Your task to perform on an android device: find which apps use the phone's location Image 0: 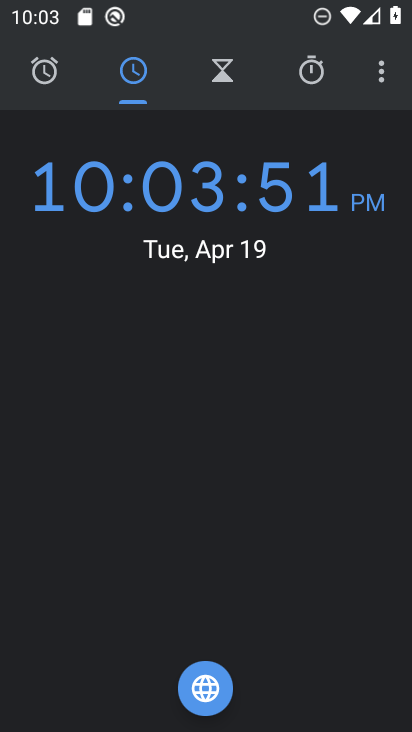
Step 0: press back button
Your task to perform on an android device: find which apps use the phone's location Image 1: 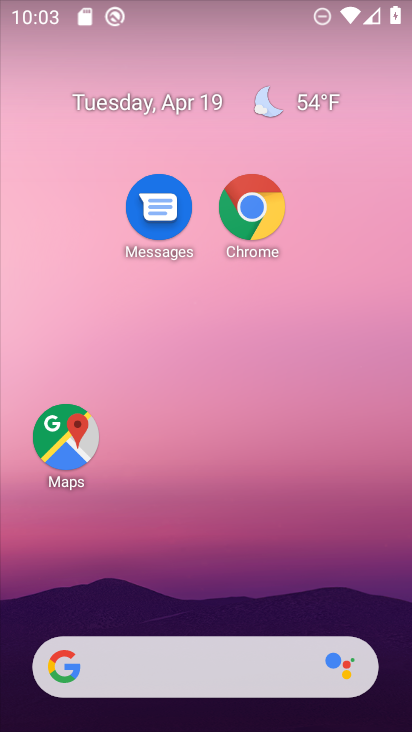
Step 1: drag from (188, 634) to (219, 244)
Your task to perform on an android device: find which apps use the phone's location Image 2: 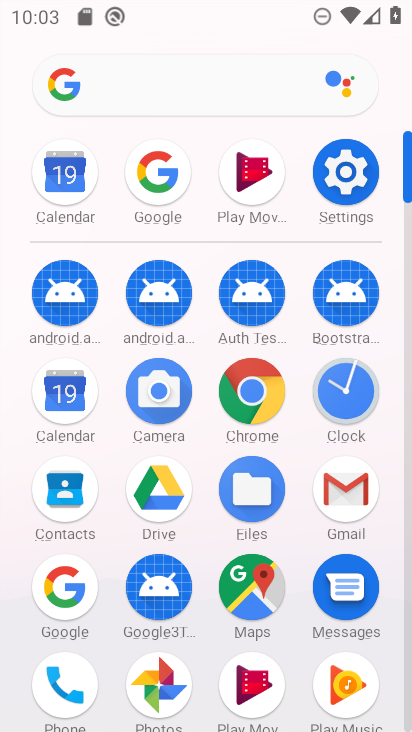
Step 2: click (346, 187)
Your task to perform on an android device: find which apps use the phone's location Image 3: 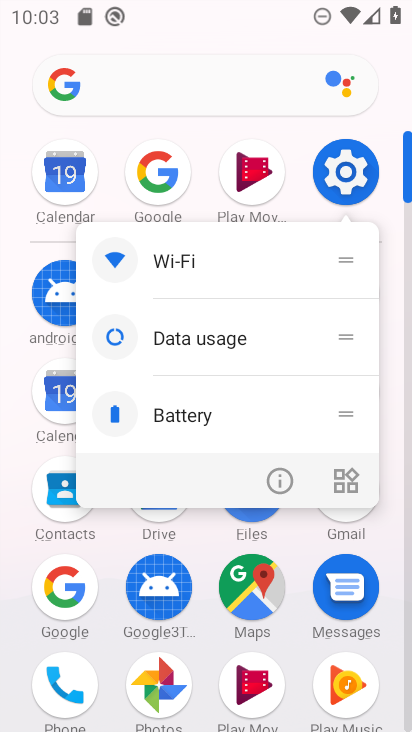
Step 3: click (349, 172)
Your task to perform on an android device: find which apps use the phone's location Image 4: 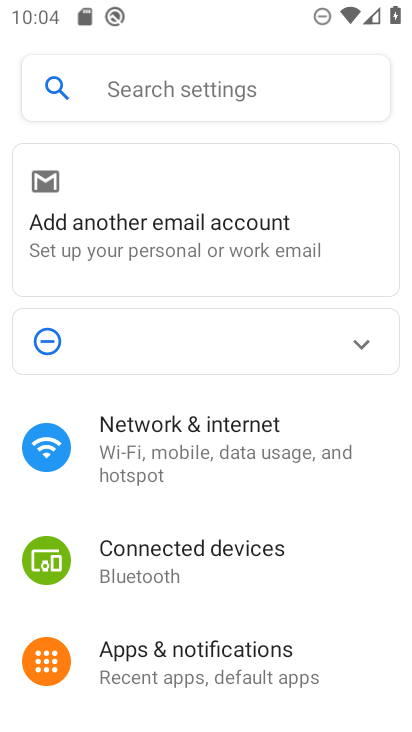
Step 4: drag from (209, 679) to (252, 331)
Your task to perform on an android device: find which apps use the phone's location Image 5: 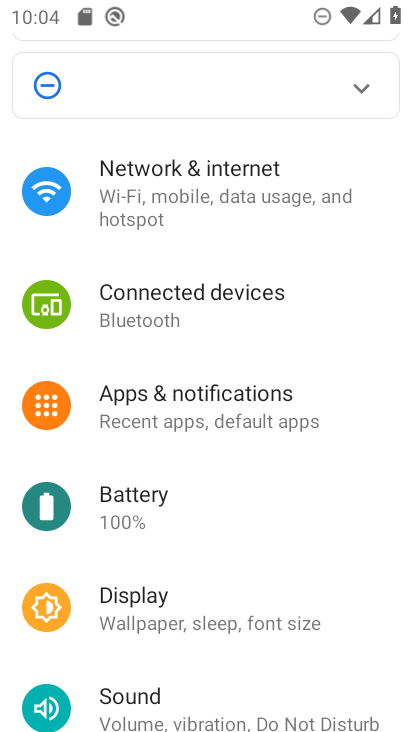
Step 5: drag from (237, 709) to (280, 382)
Your task to perform on an android device: find which apps use the phone's location Image 6: 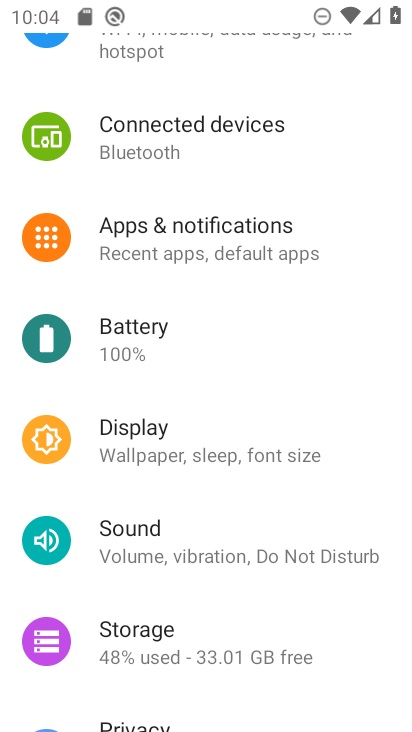
Step 6: drag from (250, 695) to (246, 391)
Your task to perform on an android device: find which apps use the phone's location Image 7: 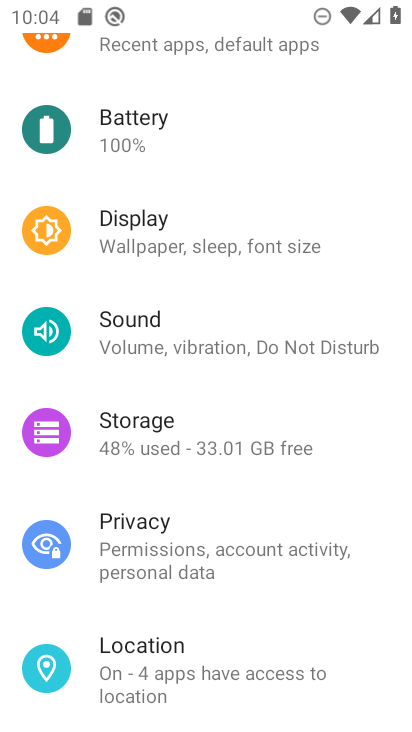
Step 7: click (173, 668)
Your task to perform on an android device: find which apps use the phone's location Image 8: 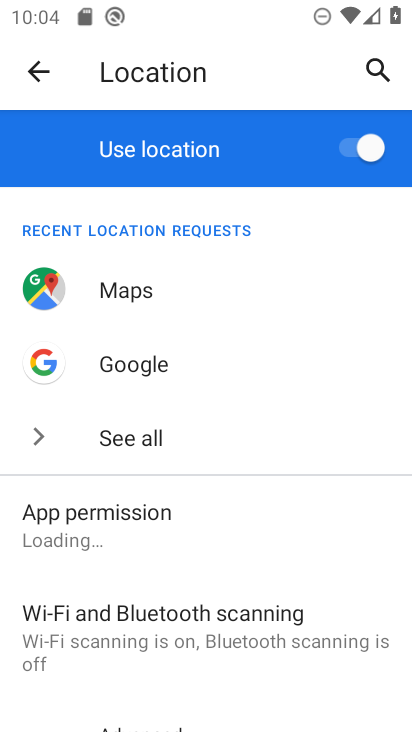
Step 8: click (107, 543)
Your task to perform on an android device: find which apps use the phone's location Image 9: 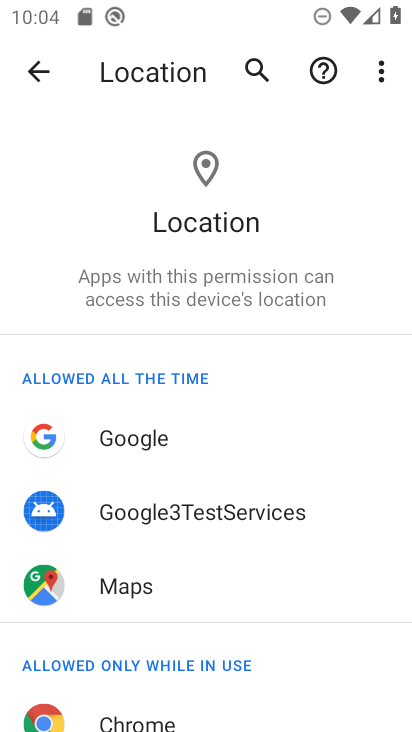
Step 9: task complete